Your task to perform on an android device: turn off airplane mode Image 0: 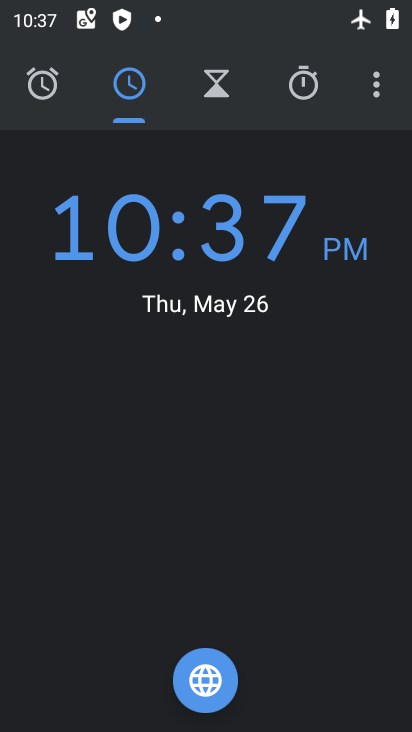
Step 0: press home button
Your task to perform on an android device: turn off airplane mode Image 1: 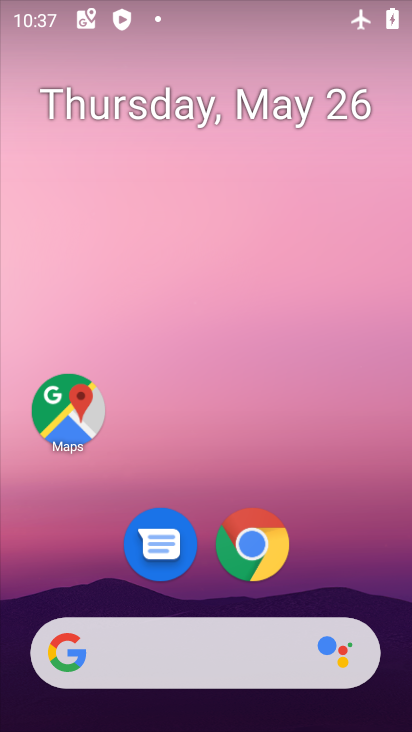
Step 1: drag from (343, 523) to (266, 50)
Your task to perform on an android device: turn off airplane mode Image 2: 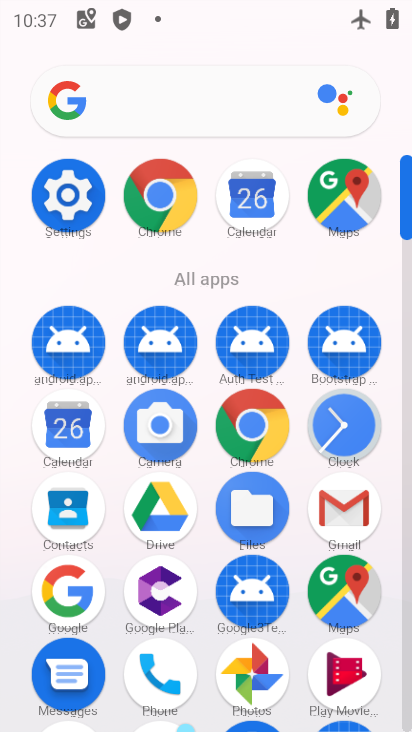
Step 2: click (66, 195)
Your task to perform on an android device: turn off airplane mode Image 3: 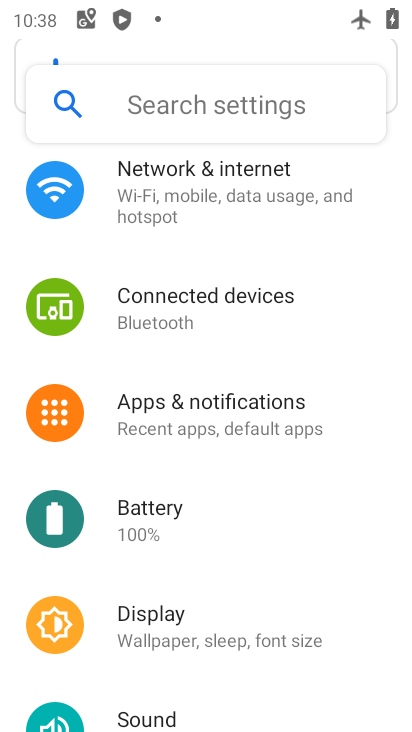
Step 3: click (204, 196)
Your task to perform on an android device: turn off airplane mode Image 4: 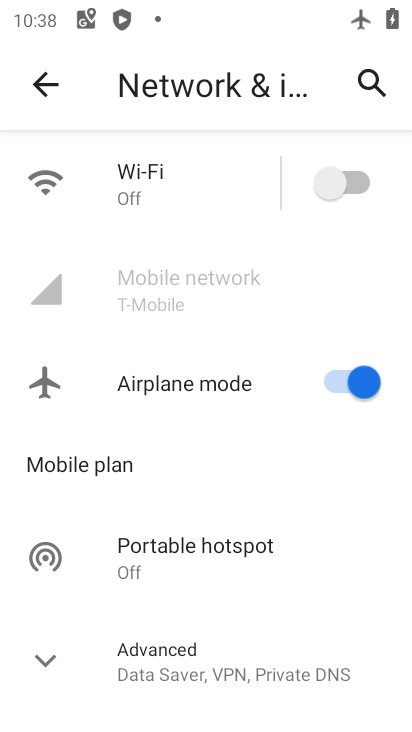
Step 4: click (345, 381)
Your task to perform on an android device: turn off airplane mode Image 5: 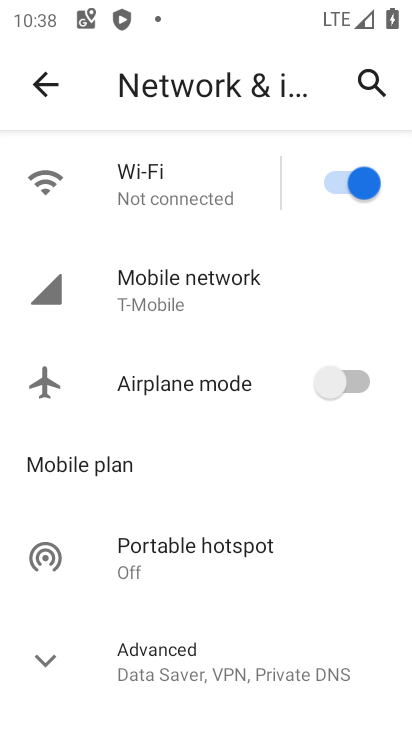
Step 5: click (35, 656)
Your task to perform on an android device: turn off airplane mode Image 6: 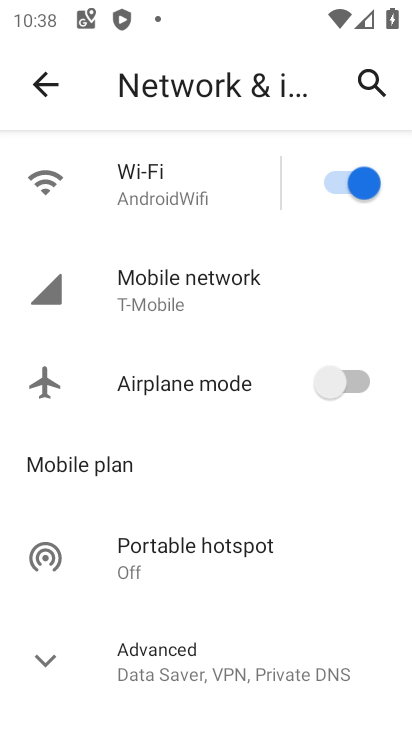
Step 6: task complete